Your task to perform on an android device: When is my next meeting? Image 0: 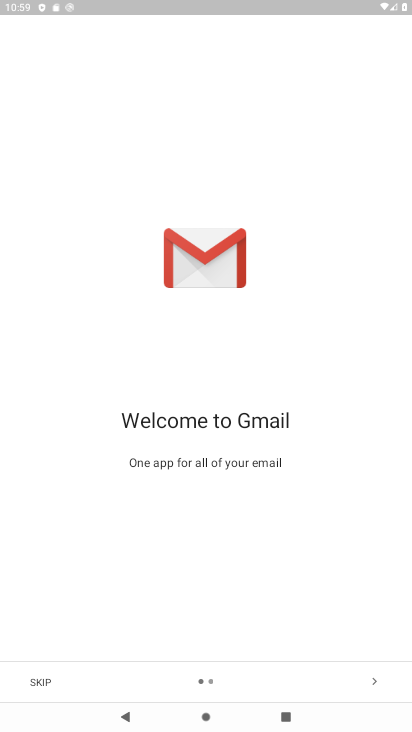
Step 0: press home button
Your task to perform on an android device: When is my next meeting? Image 1: 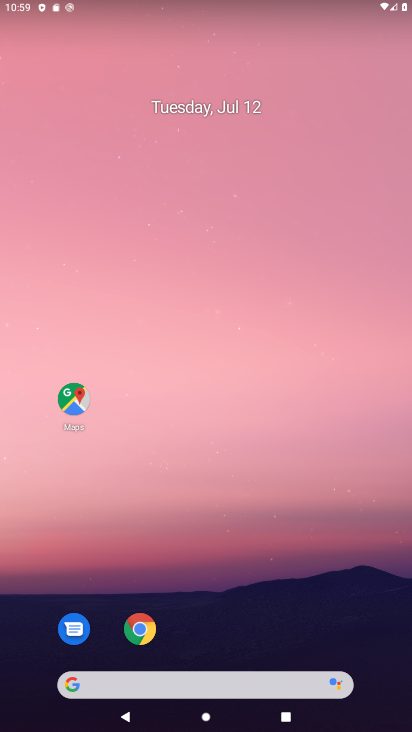
Step 1: drag from (244, 551) to (183, 29)
Your task to perform on an android device: When is my next meeting? Image 2: 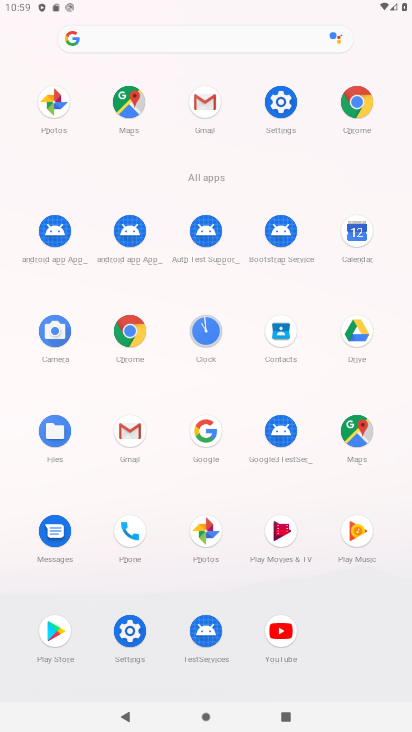
Step 2: click (356, 233)
Your task to perform on an android device: When is my next meeting? Image 3: 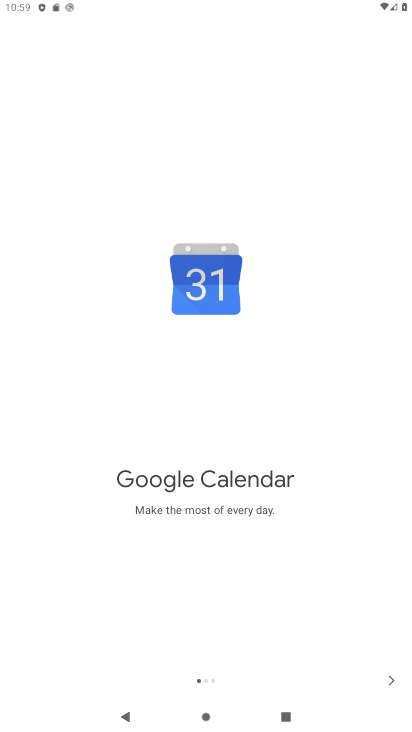
Step 3: click (389, 677)
Your task to perform on an android device: When is my next meeting? Image 4: 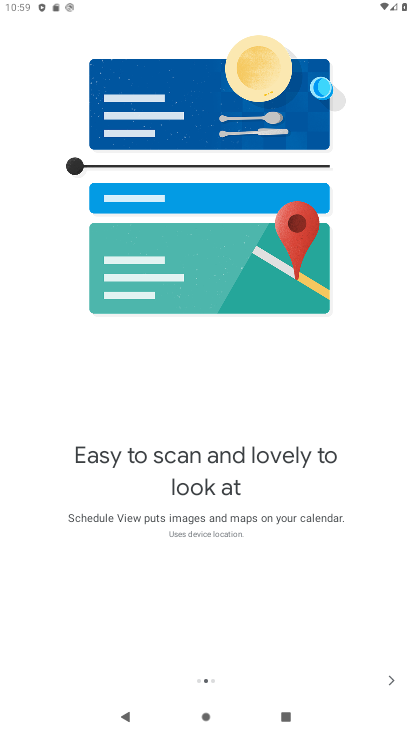
Step 4: click (389, 677)
Your task to perform on an android device: When is my next meeting? Image 5: 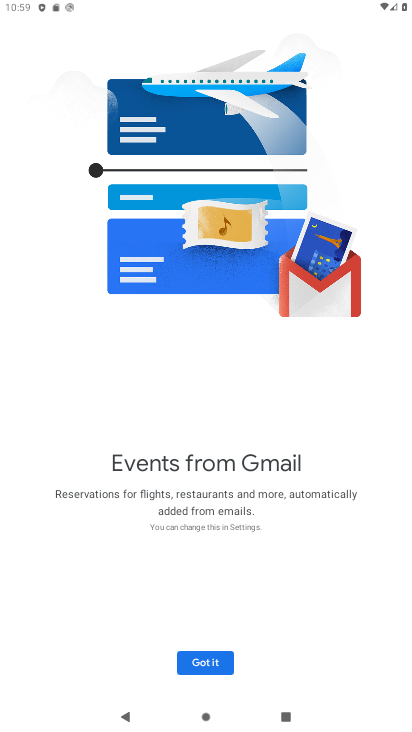
Step 5: click (213, 658)
Your task to perform on an android device: When is my next meeting? Image 6: 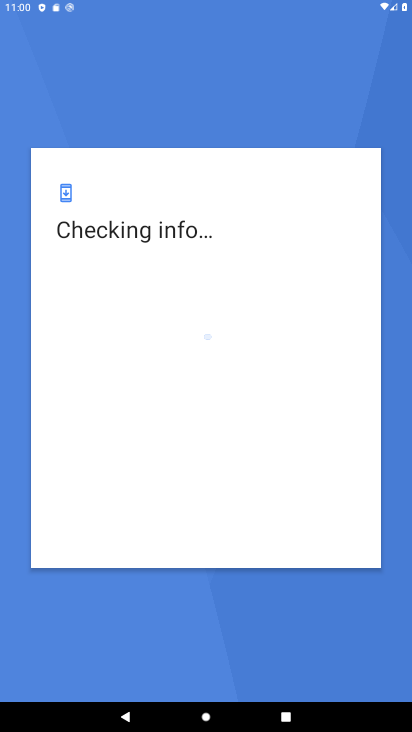
Step 6: click (213, 658)
Your task to perform on an android device: When is my next meeting? Image 7: 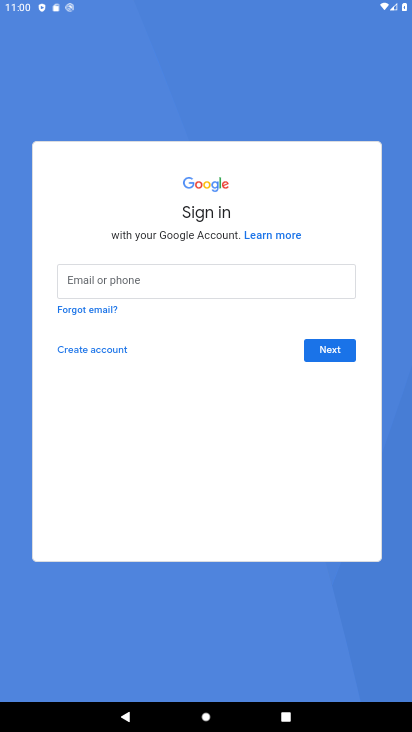
Step 7: click (334, 349)
Your task to perform on an android device: When is my next meeting? Image 8: 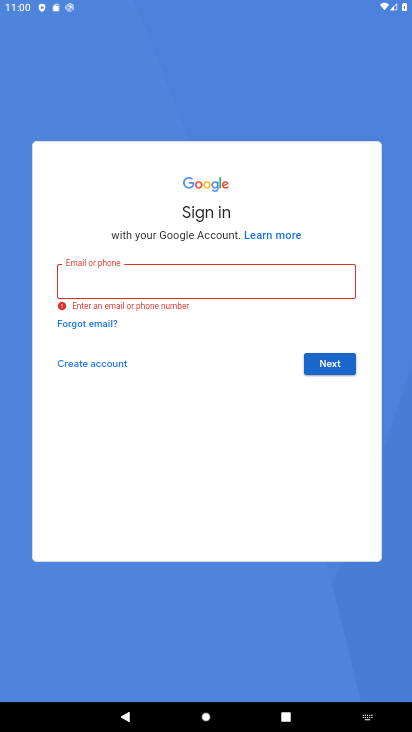
Step 8: task complete